Your task to perform on an android device: open device folders in google photos Image 0: 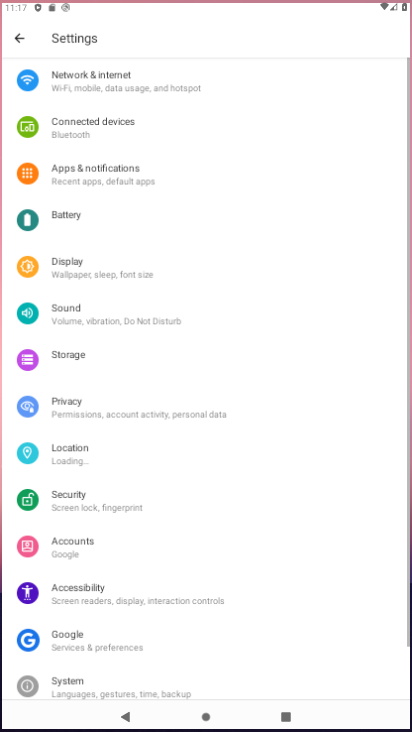
Step 0: press home button
Your task to perform on an android device: open device folders in google photos Image 1: 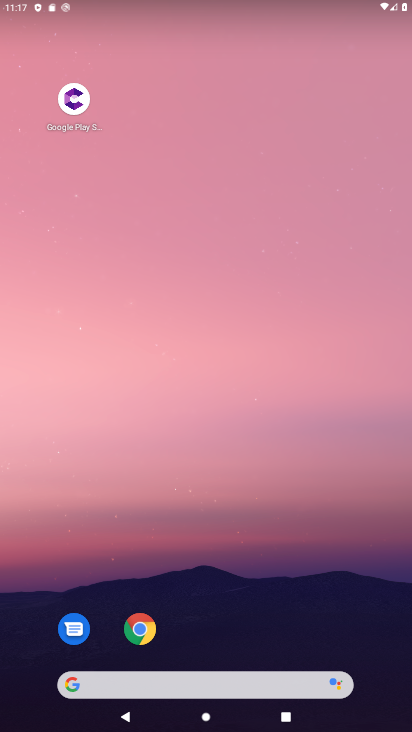
Step 1: drag from (245, 641) to (279, 136)
Your task to perform on an android device: open device folders in google photos Image 2: 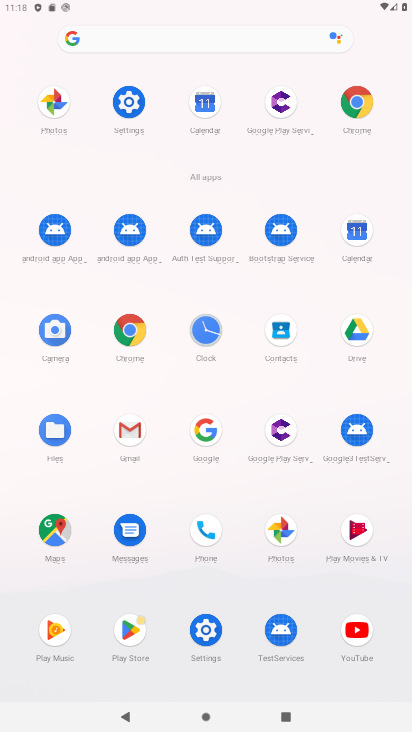
Step 2: click (271, 535)
Your task to perform on an android device: open device folders in google photos Image 3: 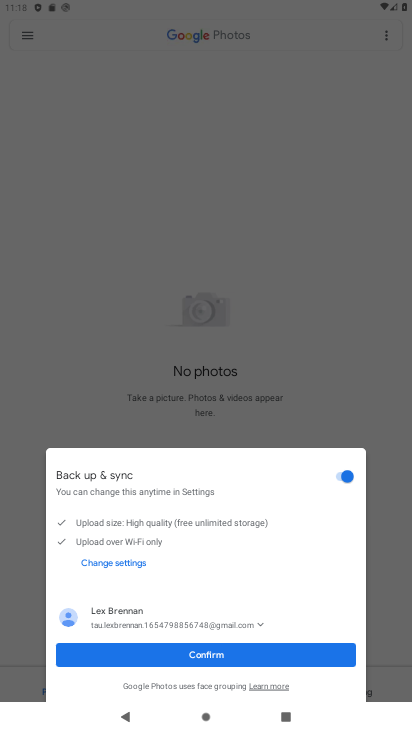
Step 3: click (210, 649)
Your task to perform on an android device: open device folders in google photos Image 4: 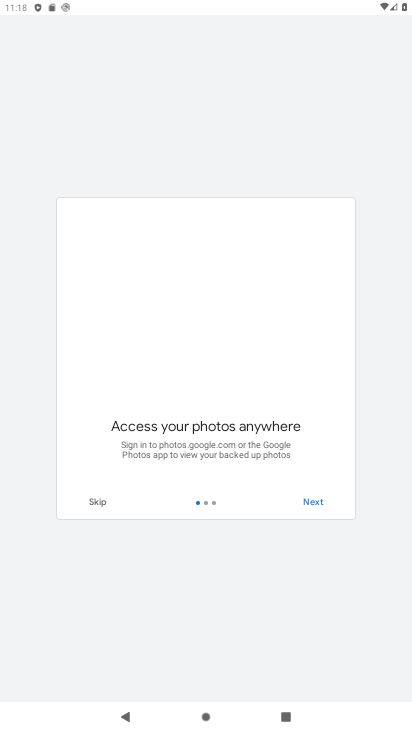
Step 4: click (316, 502)
Your task to perform on an android device: open device folders in google photos Image 5: 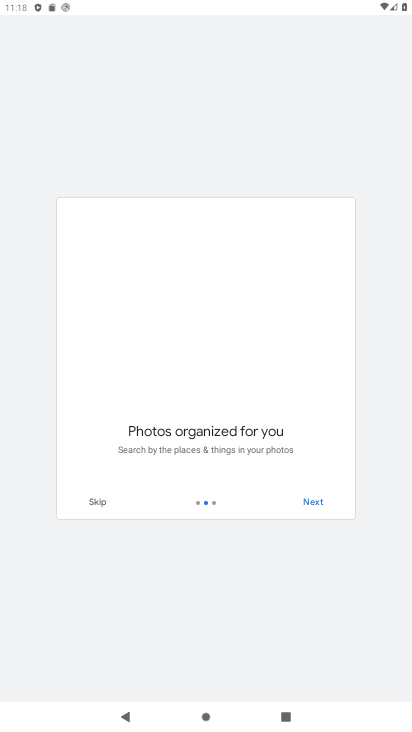
Step 5: click (315, 502)
Your task to perform on an android device: open device folders in google photos Image 6: 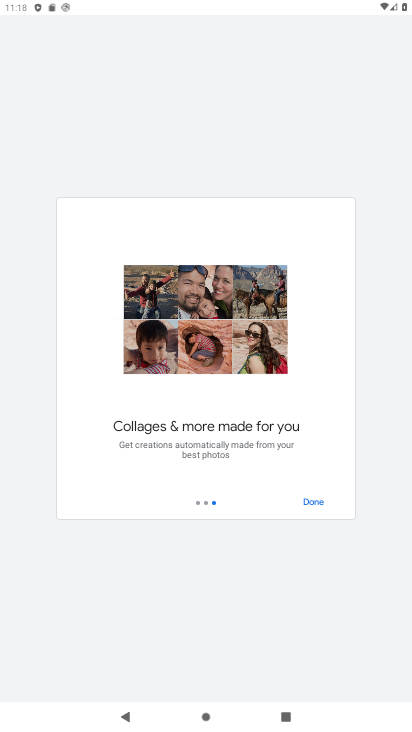
Step 6: click (315, 502)
Your task to perform on an android device: open device folders in google photos Image 7: 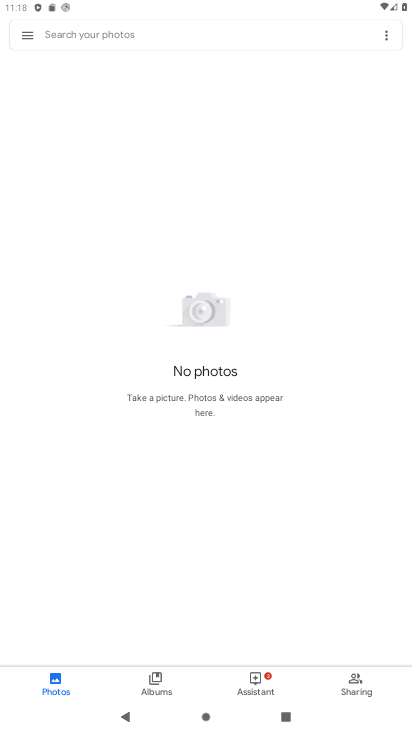
Step 7: click (22, 39)
Your task to perform on an android device: open device folders in google photos Image 8: 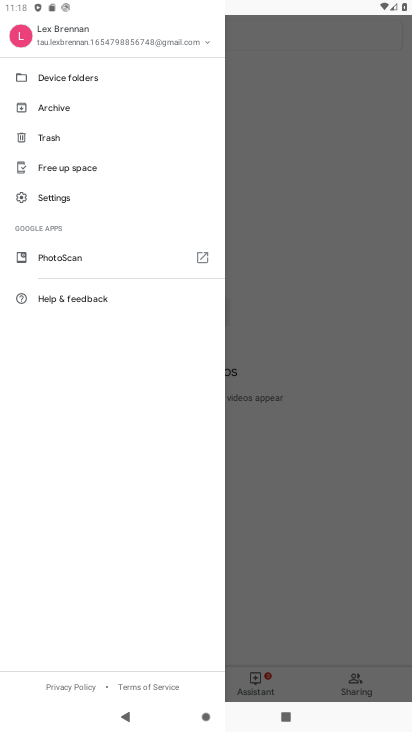
Step 8: click (48, 83)
Your task to perform on an android device: open device folders in google photos Image 9: 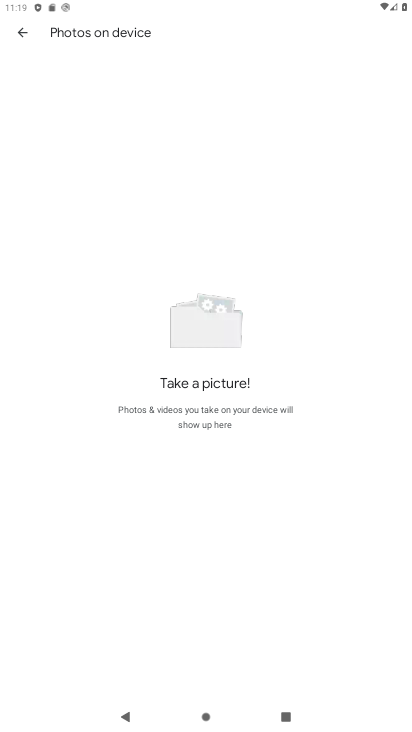
Step 9: task complete